Your task to perform on an android device: turn off data saver in the chrome app Image 0: 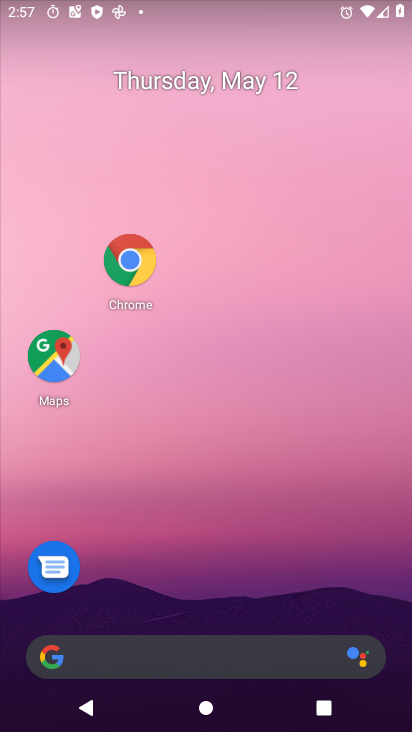
Step 0: click (139, 269)
Your task to perform on an android device: turn off data saver in the chrome app Image 1: 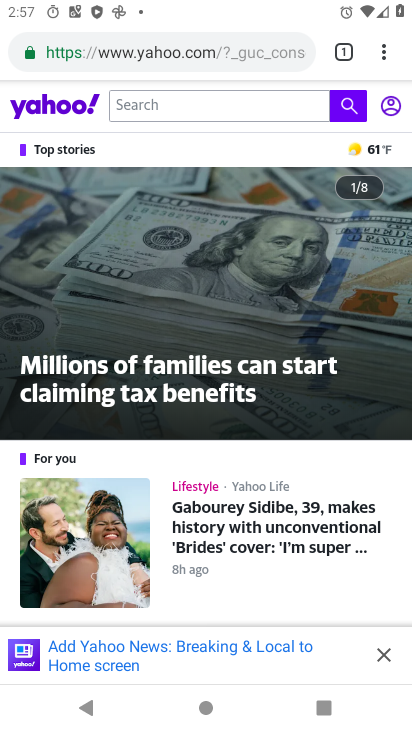
Step 1: click (388, 53)
Your task to perform on an android device: turn off data saver in the chrome app Image 2: 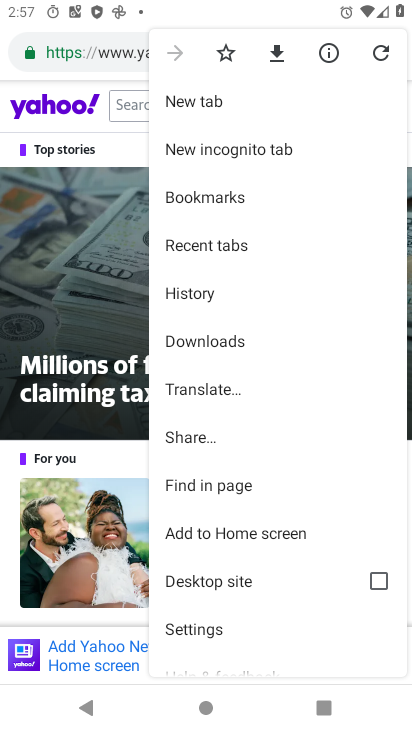
Step 2: click (205, 626)
Your task to perform on an android device: turn off data saver in the chrome app Image 3: 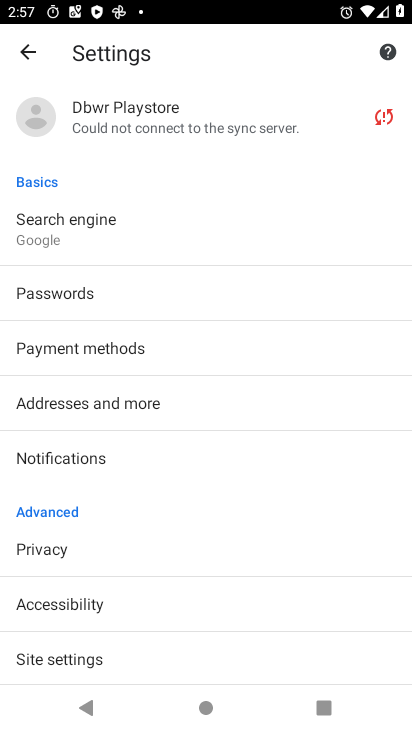
Step 3: drag from (107, 662) to (145, 398)
Your task to perform on an android device: turn off data saver in the chrome app Image 4: 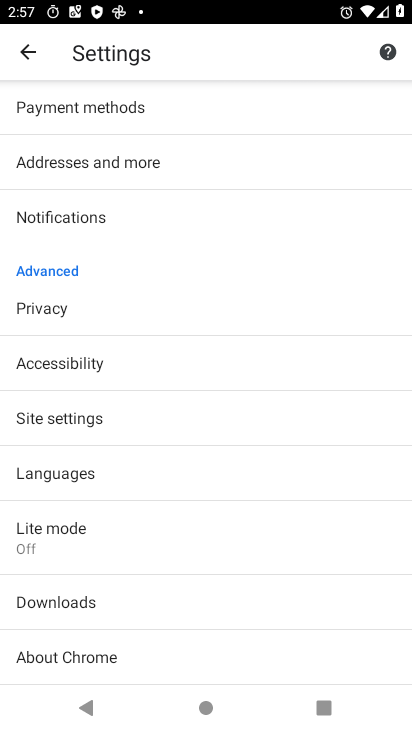
Step 4: click (86, 532)
Your task to perform on an android device: turn off data saver in the chrome app Image 5: 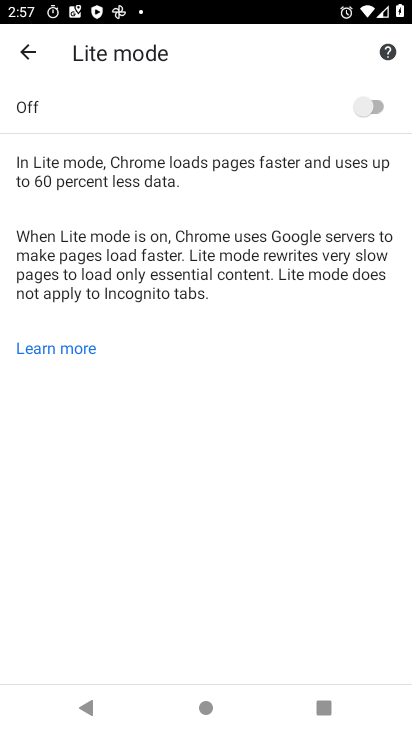
Step 5: task complete